Your task to perform on an android device: move a message to another label in the gmail app Image 0: 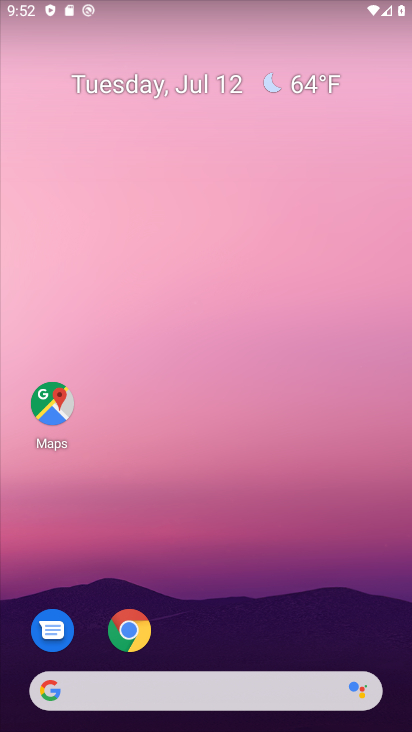
Step 0: drag from (242, 673) to (196, 108)
Your task to perform on an android device: move a message to another label in the gmail app Image 1: 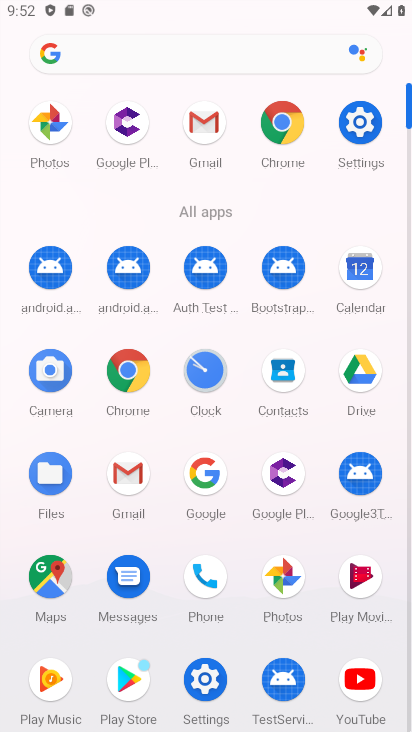
Step 1: click (208, 123)
Your task to perform on an android device: move a message to another label in the gmail app Image 2: 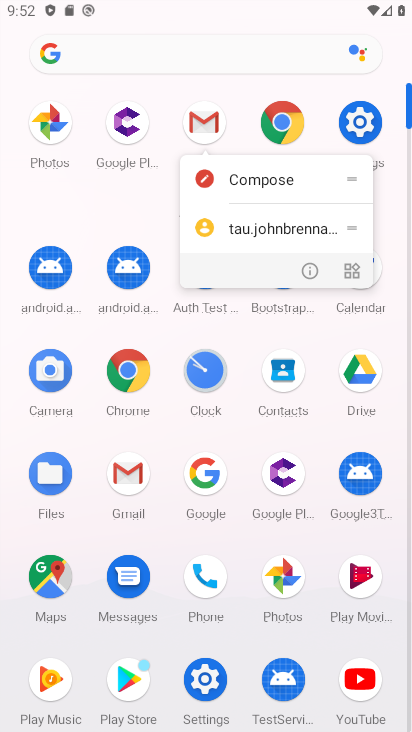
Step 2: click (201, 131)
Your task to perform on an android device: move a message to another label in the gmail app Image 3: 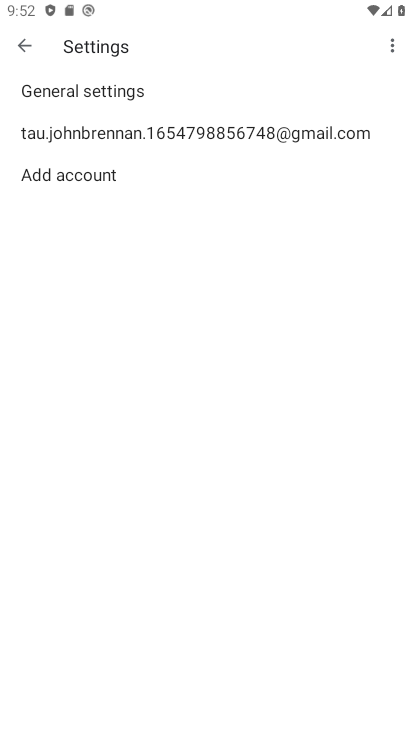
Step 3: click (201, 131)
Your task to perform on an android device: move a message to another label in the gmail app Image 4: 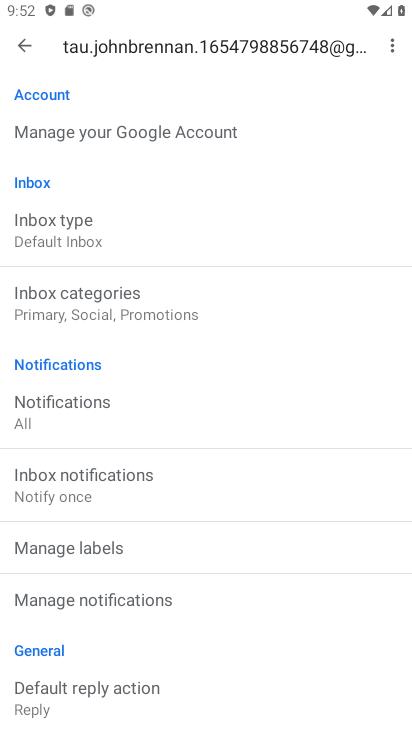
Step 4: click (13, 34)
Your task to perform on an android device: move a message to another label in the gmail app Image 5: 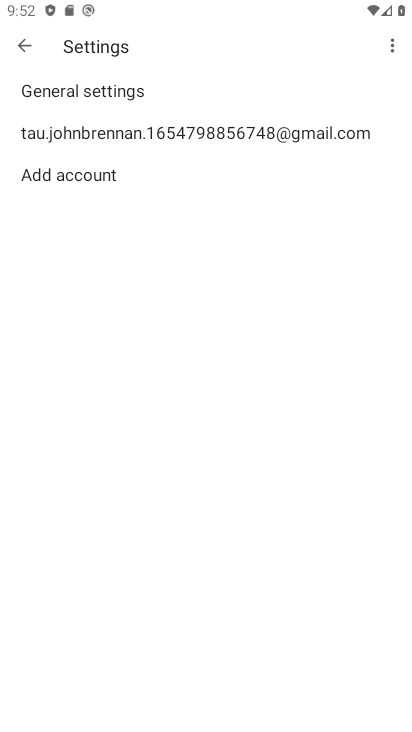
Step 5: click (34, 59)
Your task to perform on an android device: move a message to another label in the gmail app Image 6: 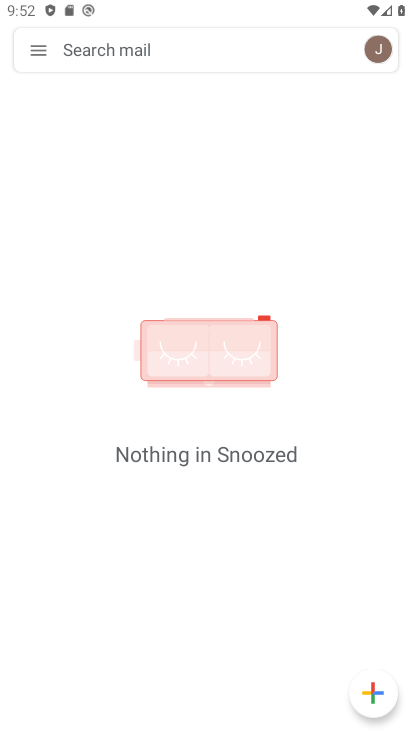
Step 6: click (19, 45)
Your task to perform on an android device: move a message to another label in the gmail app Image 7: 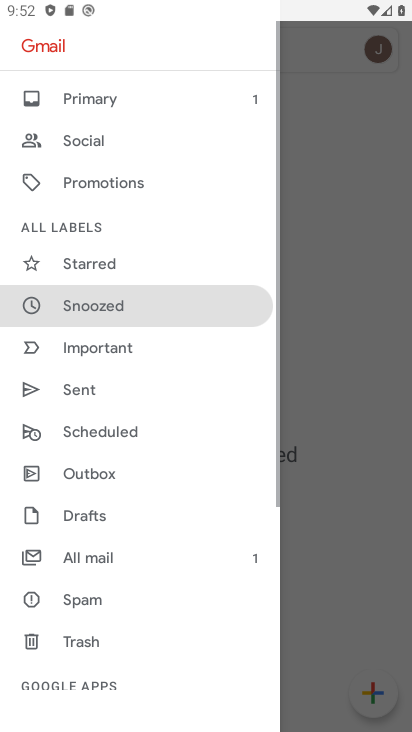
Step 7: drag from (120, 199) to (188, 646)
Your task to perform on an android device: move a message to another label in the gmail app Image 8: 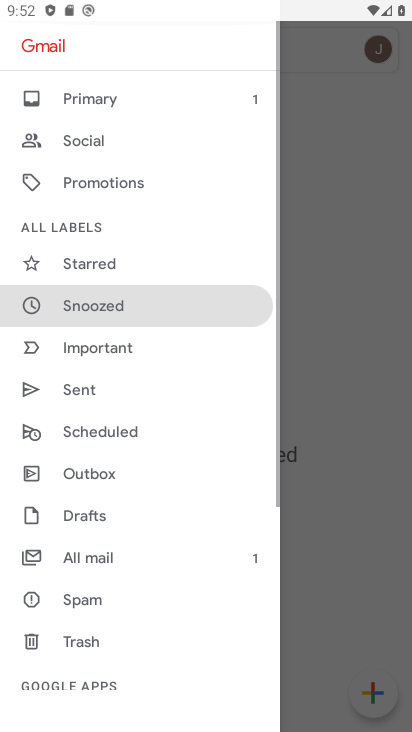
Step 8: click (111, 560)
Your task to perform on an android device: move a message to another label in the gmail app Image 9: 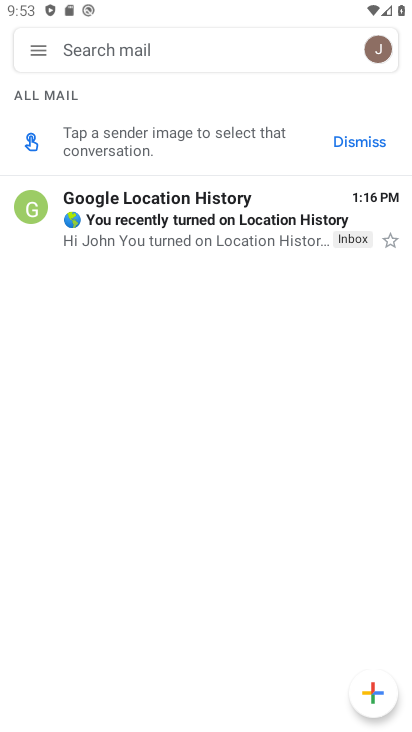
Step 9: click (215, 232)
Your task to perform on an android device: move a message to another label in the gmail app Image 10: 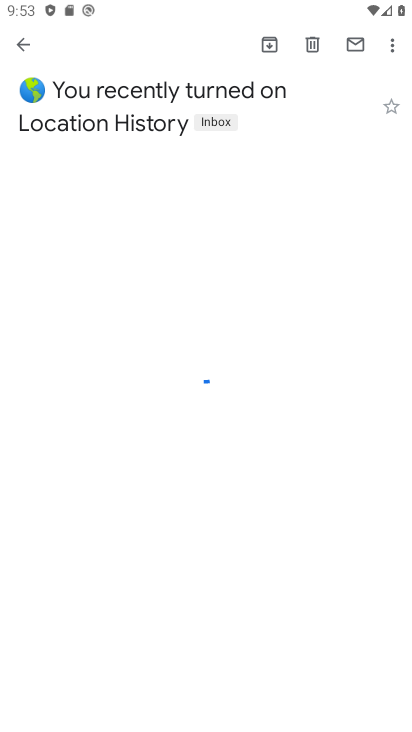
Step 10: click (387, 47)
Your task to perform on an android device: move a message to another label in the gmail app Image 11: 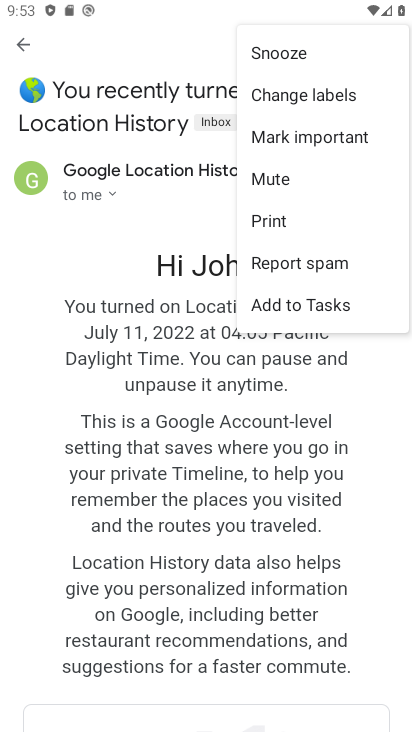
Step 11: click (319, 92)
Your task to perform on an android device: move a message to another label in the gmail app Image 12: 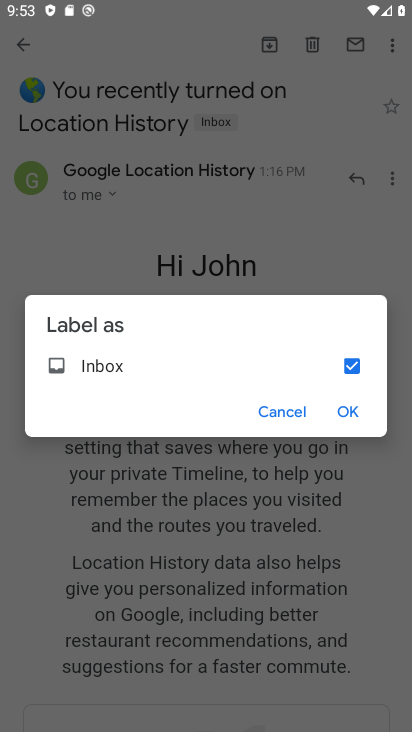
Step 12: click (353, 412)
Your task to perform on an android device: move a message to another label in the gmail app Image 13: 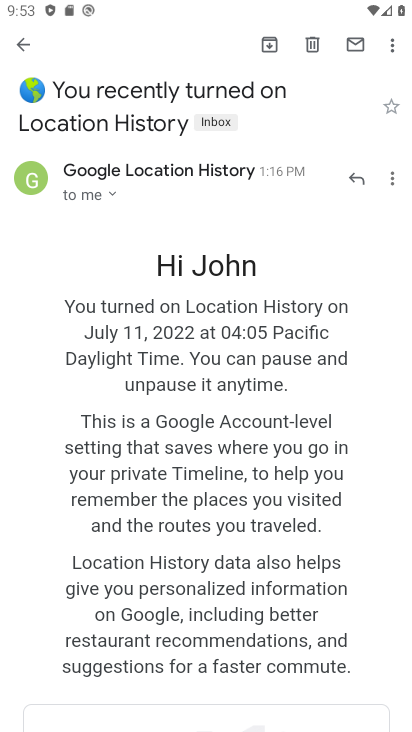
Step 13: task complete